Your task to perform on an android device: allow cookies in the chrome app Image 0: 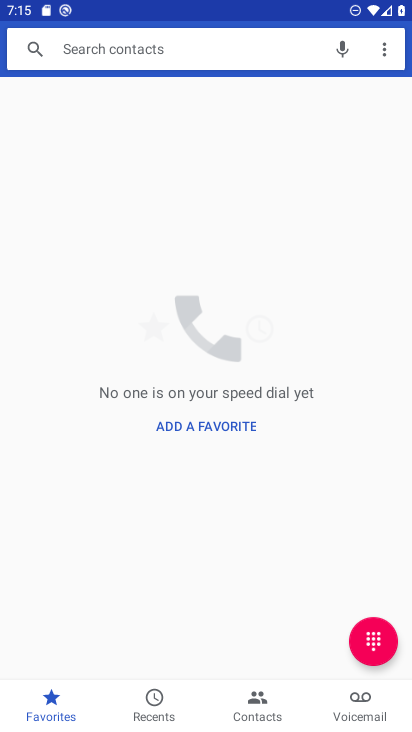
Step 0: press home button
Your task to perform on an android device: allow cookies in the chrome app Image 1: 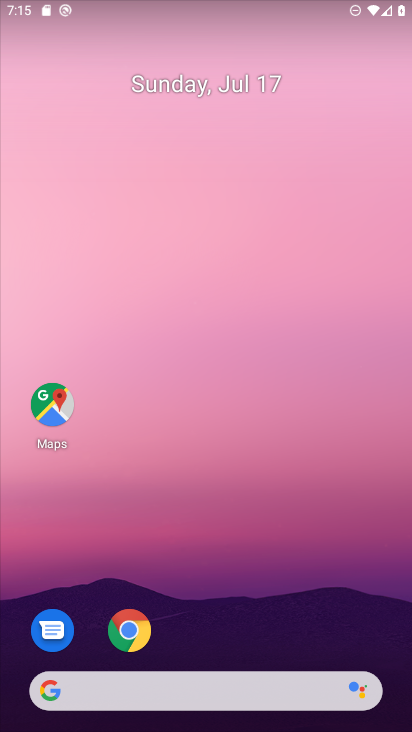
Step 1: drag from (376, 643) to (225, 89)
Your task to perform on an android device: allow cookies in the chrome app Image 2: 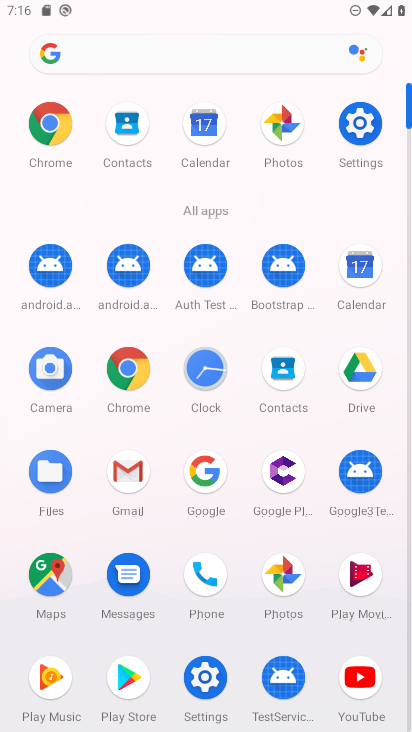
Step 2: click (121, 374)
Your task to perform on an android device: allow cookies in the chrome app Image 3: 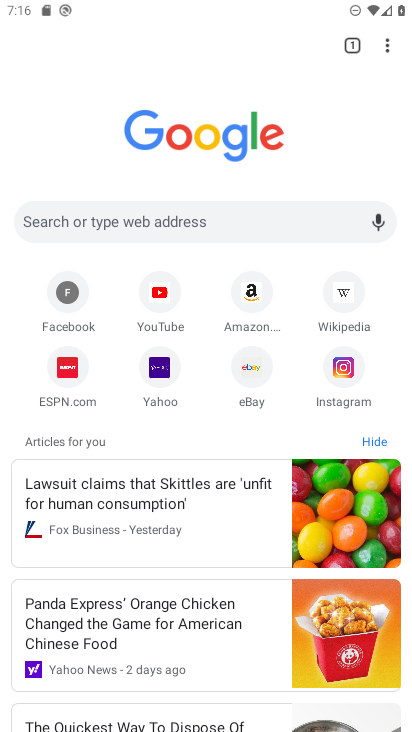
Step 3: click (384, 41)
Your task to perform on an android device: allow cookies in the chrome app Image 4: 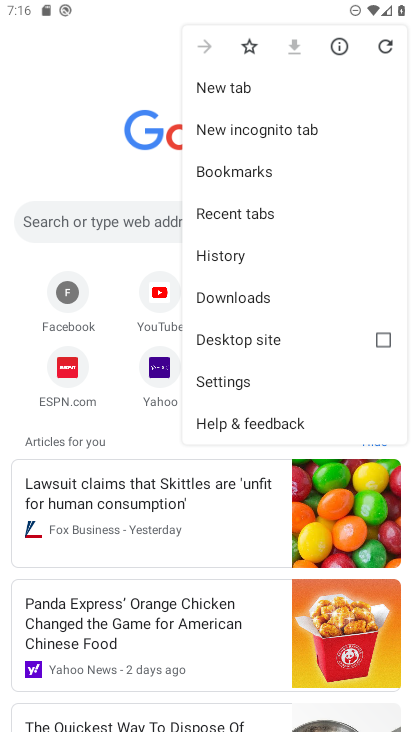
Step 4: click (227, 247)
Your task to perform on an android device: allow cookies in the chrome app Image 5: 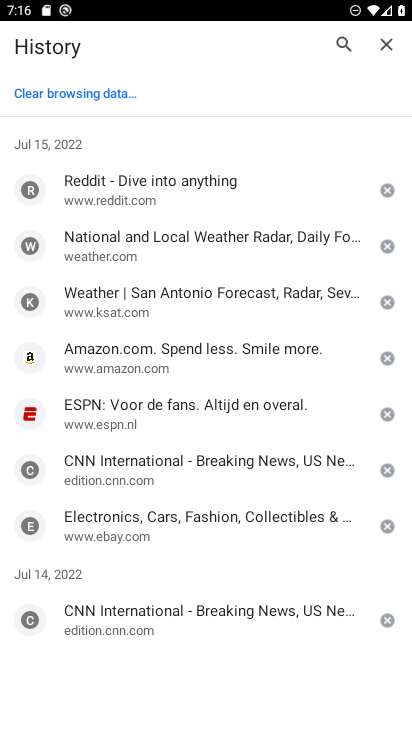
Step 5: click (54, 90)
Your task to perform on an android device: allow cookies in the chrome app Image 6: 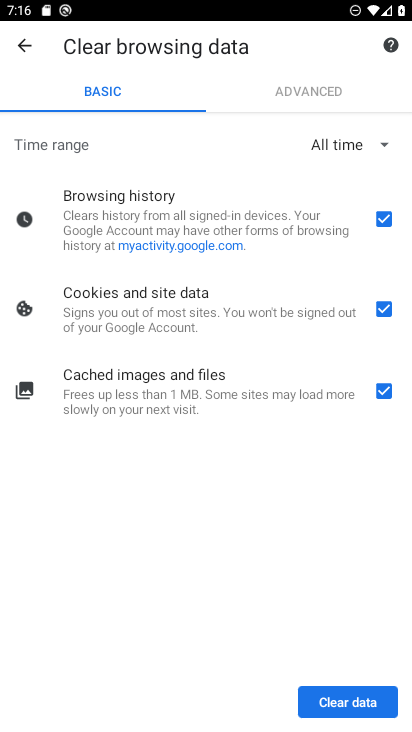
Step 6: task complete